Your task to perform on an android device: show emergency info Image 0: 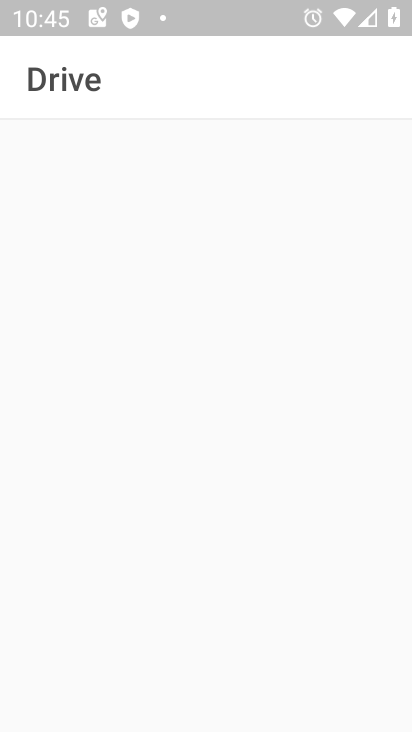
Step 0: drag from (390, 678) to (316, 132)
Your task to perform on an android device: show emergency info Image 1: 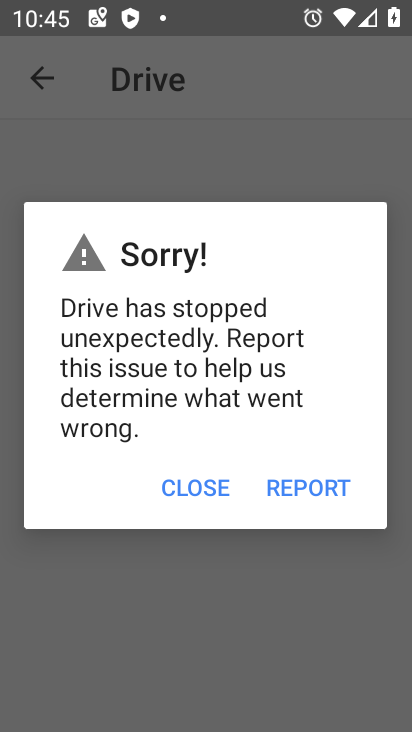
Step 1: press home button
Your task to perform on an android device: show emergency info Image 2: 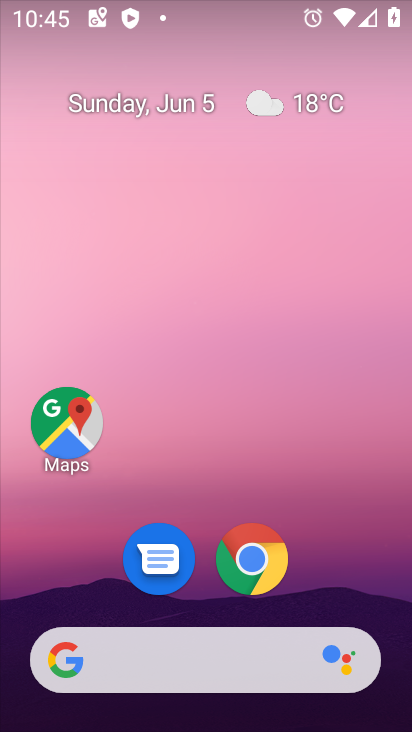
Step 2: drag from (396, 695) to (314, 92)
Your task to perform on an android device: show emergency info Image 3: 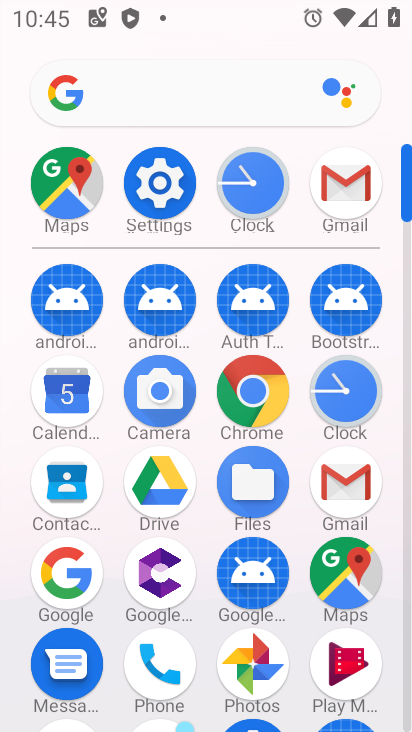
Step 3: click (140, 191)
Your task to perform on an android device: show emergency info Image 4: 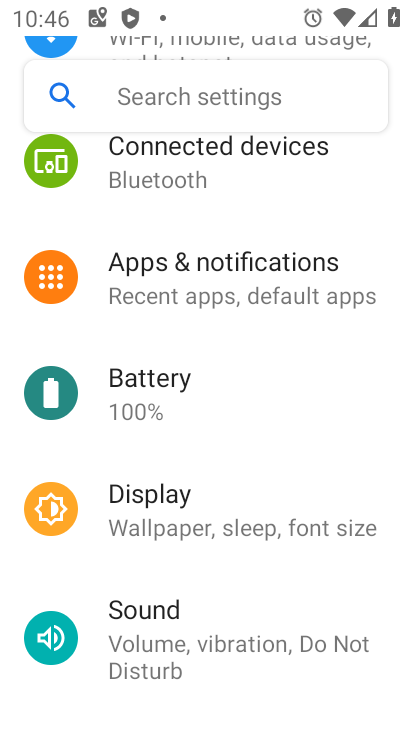
Step 4: drag from (219, 640) to (187, 278)
Your task to perform on an android device: show emergency info Image 5: 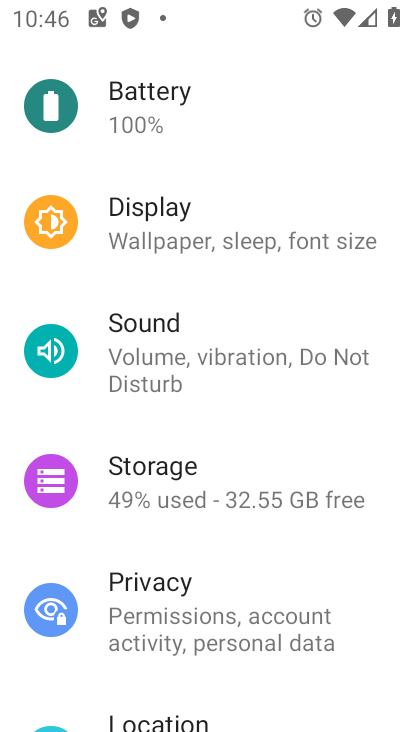
Step 5: drag from (245, 635) to (219, 231)
Your task to perform on an android device: show emergency info Image 6: 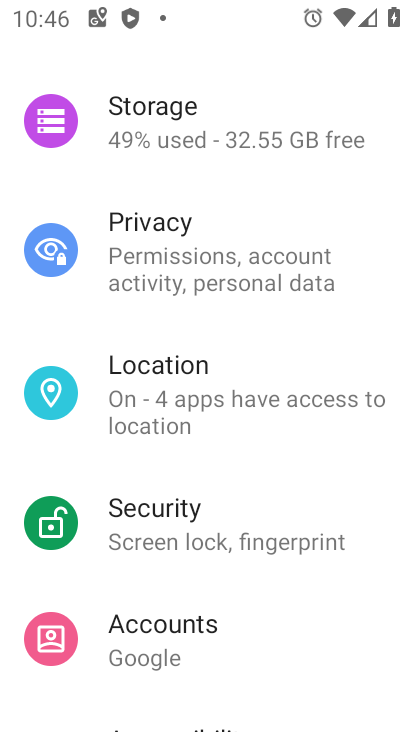
Step 6: drag from (307, 624) to (251, 103)
Your task to perform on an android device: show emergency info Image 7: 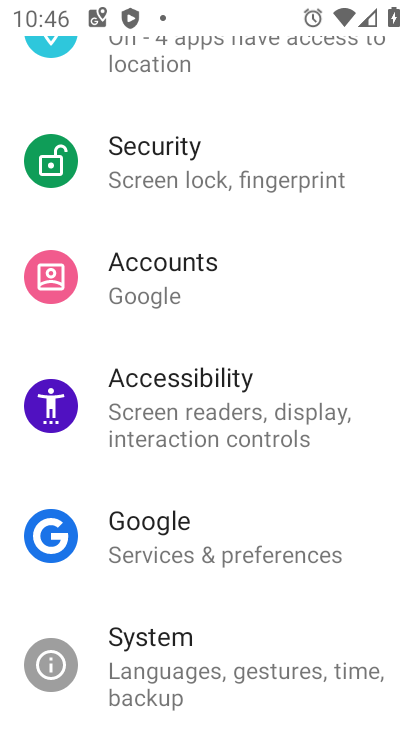
Step 7: drag from (240, 655) to (221, 300)
Your task to perform on an android device: show emergency info Image 8: 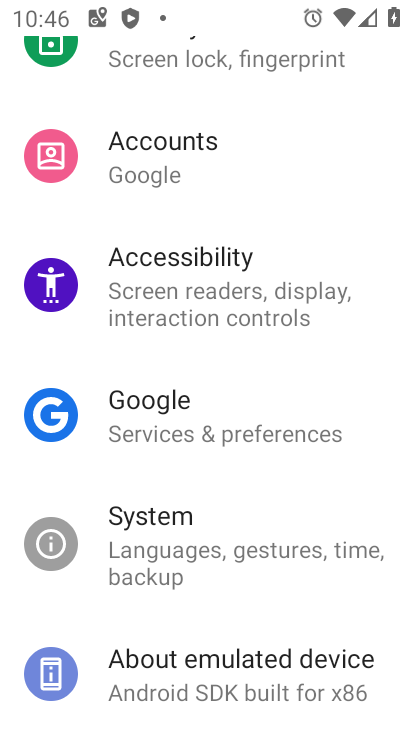
Step 8: click (246, 662)
Your task to perform on an android device: show emergency info Image 9: 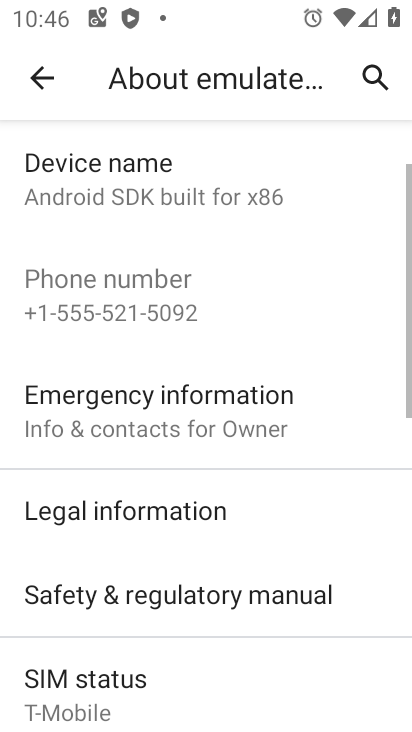
Step 9: task complete